Your task to perform on an android device: Go to internet settings Image 0: 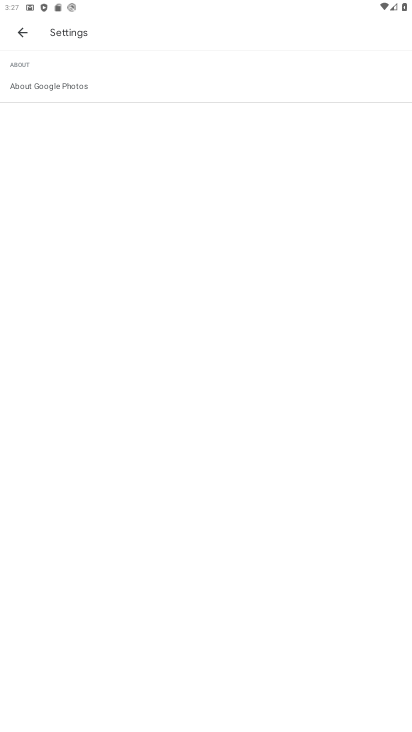
Step 0: drag from (203, 562) to (203, 245)
Your task to perform on an android device: Go to internet settings Image 1: 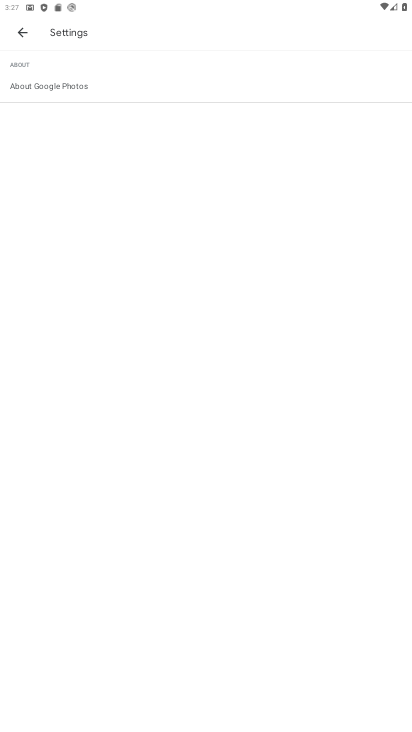
Step 1: press home button
Your task to perform on an android device: Go to internet settings Image 2: 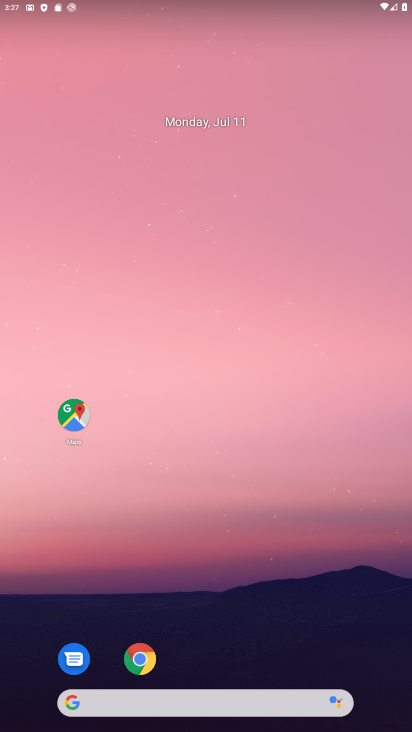
Step 2: drag from (209, 543) to (208, 114)
Your task to perform on an android device: Go to internet settings Image 3: 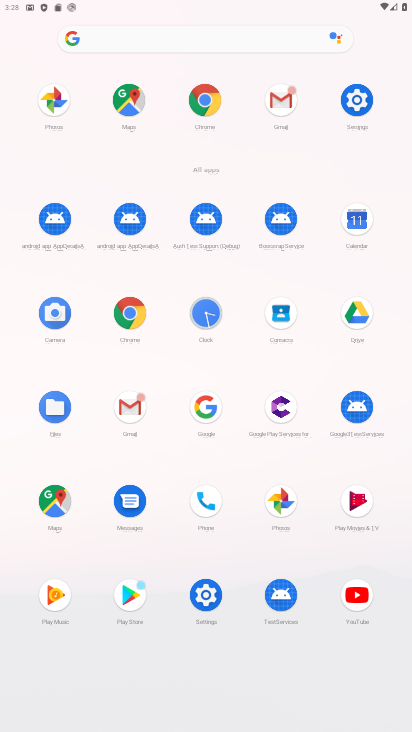
Step 3: click (363, 118)
Your task to perform on an android device: Go to internet settings Image 4: 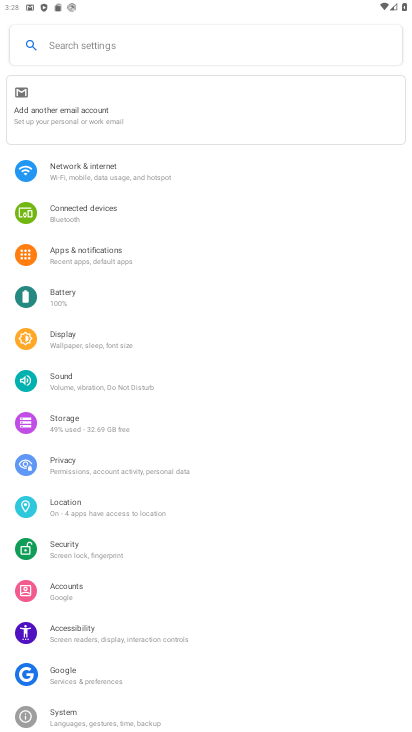
Step 4: click (101, 173)
Your task to perform on an android device: Go to internet settings Image 5: 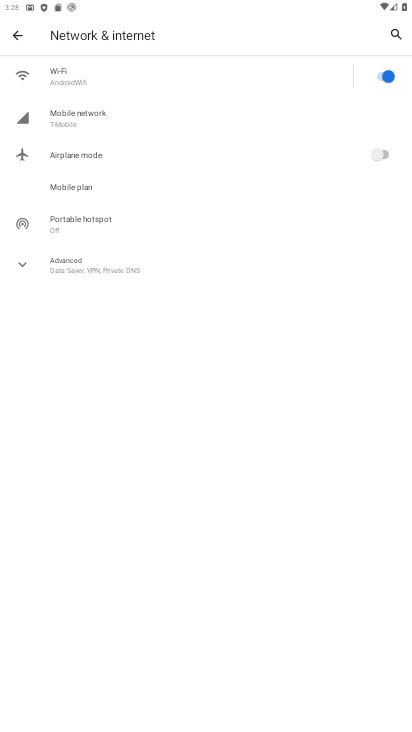
Step 5: task complete